Your task to perform on an android device: What's on my calendar today? Image 0: 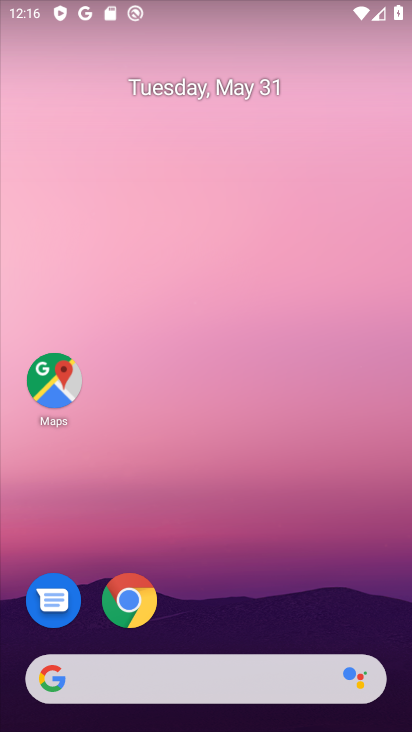
Step 0: drag from (218, 628) to (179, 62)
Your task to perform on an android device: What's on my calendar today? Image 1: 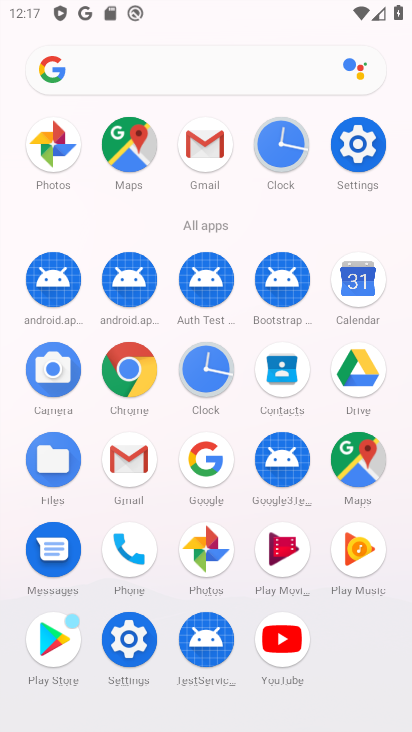
Step 1: click (356, 287)
Your task to perform on an android device: What's on my calendar today? Image 2: 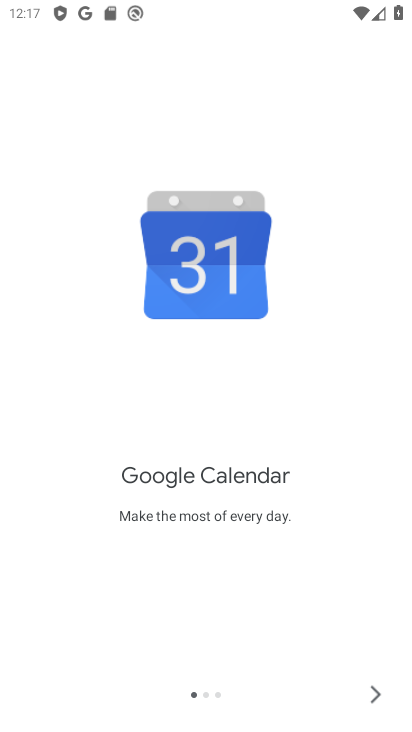
Step 2: click (380, 691)
Your task to perform on an android device: What's on my calendar today? Image 3: 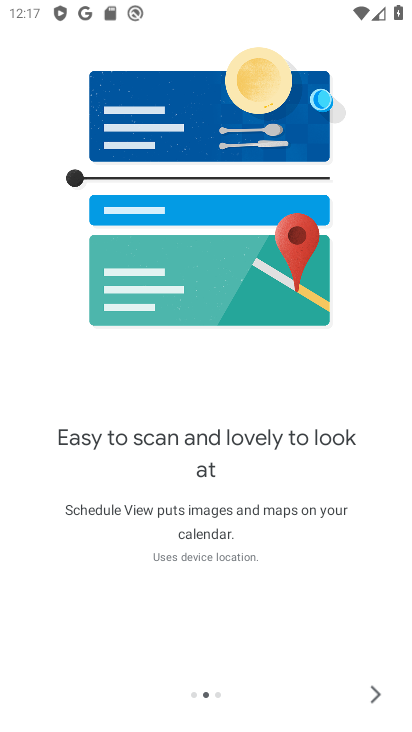
Step 3: click (374, 692)
Your task to perform on an android device: What's on my calendar today? Image 4: 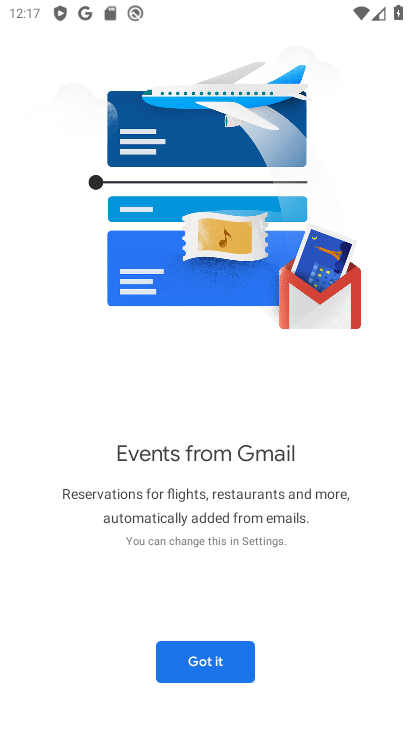
Step 4: click (227, 671)
Your task to perform on an android device: What's on my calendar today? Image 5: 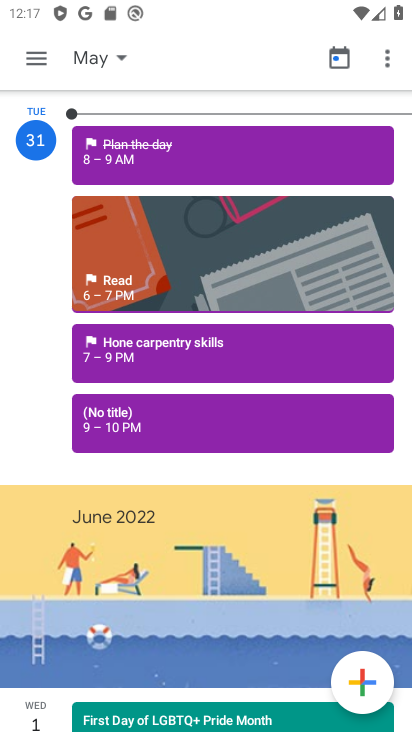
Step 5: click (38, 138)
Your task to perform on an android device: What's on my calendar today? Image 6: 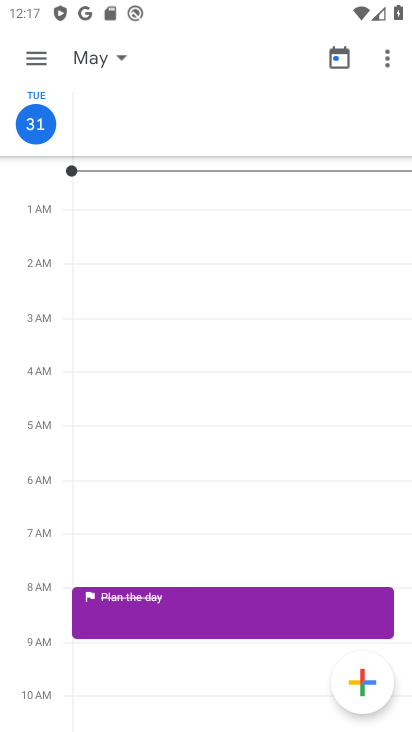
Step 6: task complete